Your task to perform on an android device: Open calendar and show me the third week of next month Image 0: 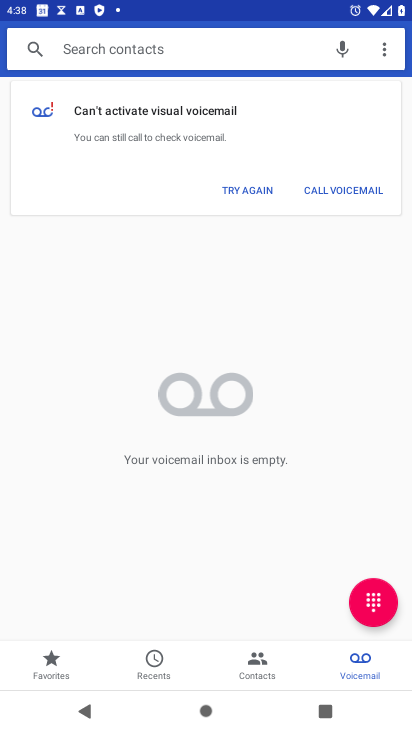
Step 0: press home button
Your task to perform on an android device: Open calendar and show me the third week of next month Image 1: 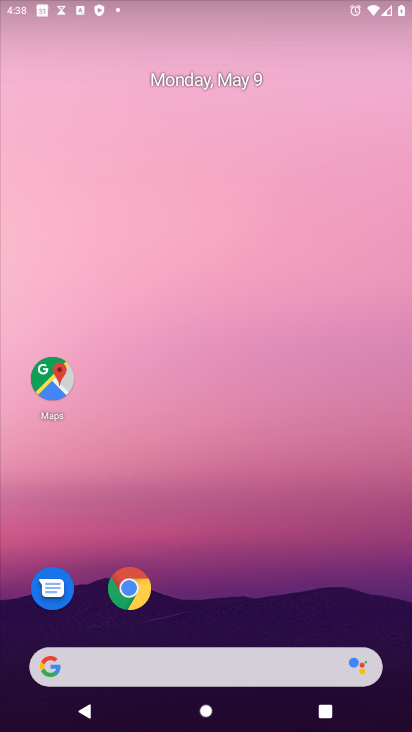
Step 1: drag from (296, 553) to (212, 90)
Your task to perform on an android device: Open calendar and show me the third week of next month Image 2: 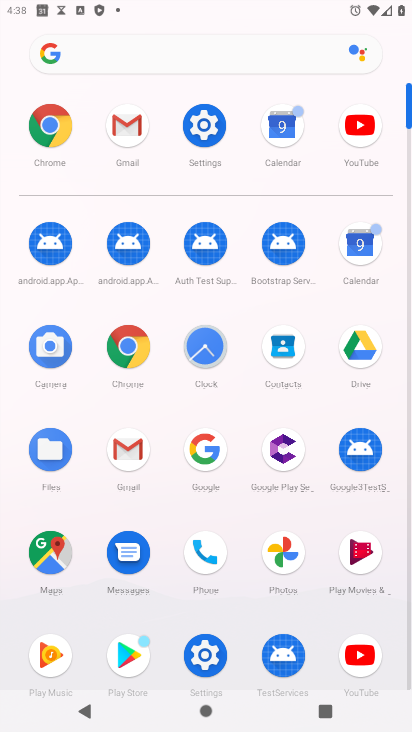
Step 2: click (354, 243)
Your task to perform on an android device: Open calendar and show me the third week of next month Image 3: 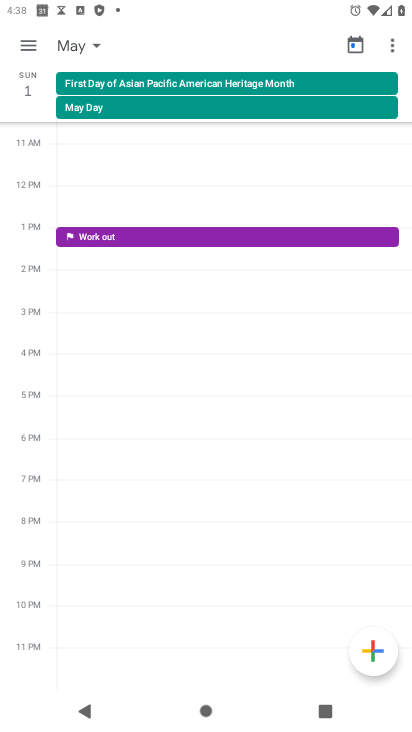
Step 3: click (24, 44)
Your task to perform on an android device: Open calendar and show me the third week of next month Image 4: 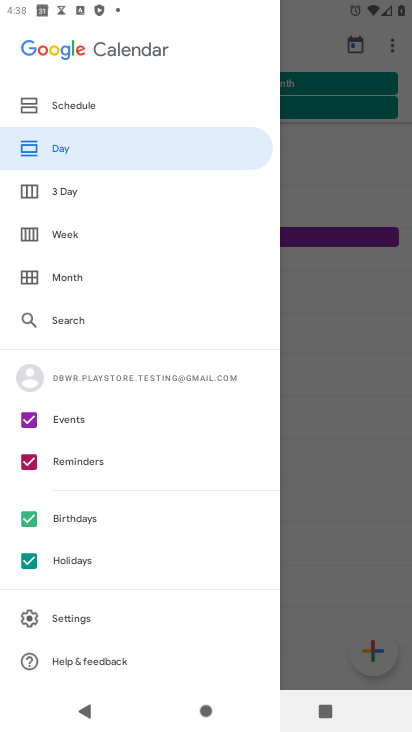
Step 4: click (74, 241)
Your task to perform on an android device: Open calendar and show me the third week of next month Image 5: 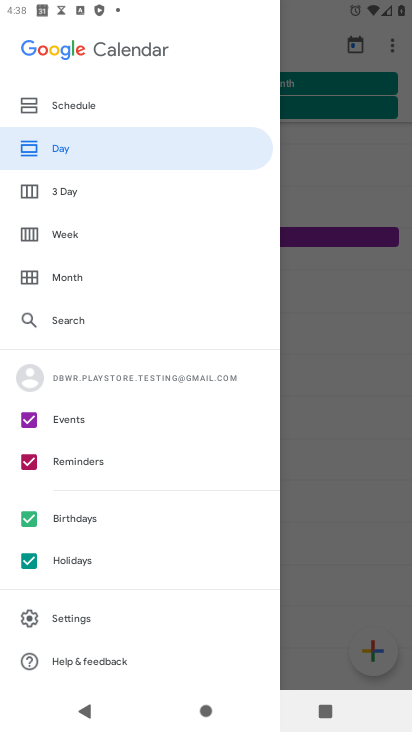
Step 5: click (65, 232)
Your task to perform on an android device: Open calendar and show me the third week of next month Image 6: 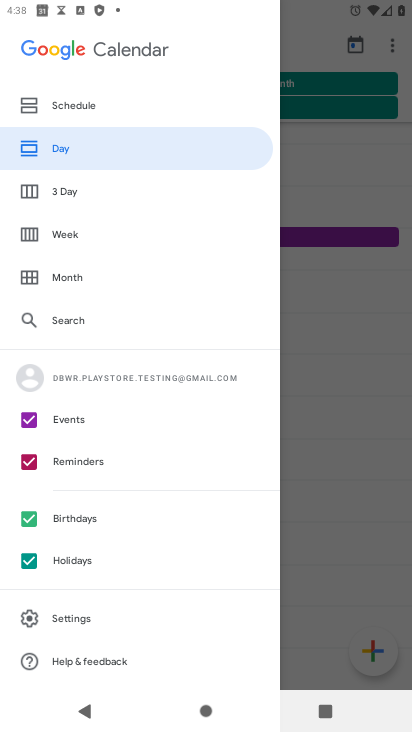
Step 6: click (79, 230)
Your task to perform on an android device: Open calendar and show me the third week of next month Image 7: 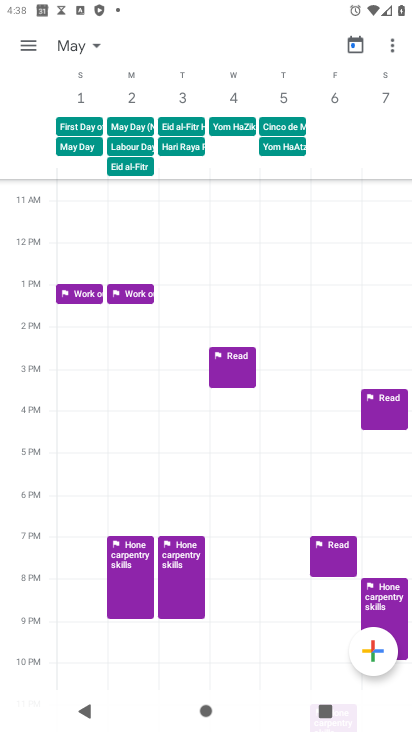
Step 7: click (88, 36)
Your task to perform on an android device: Open calendar and show me the third week of next month Image 8: 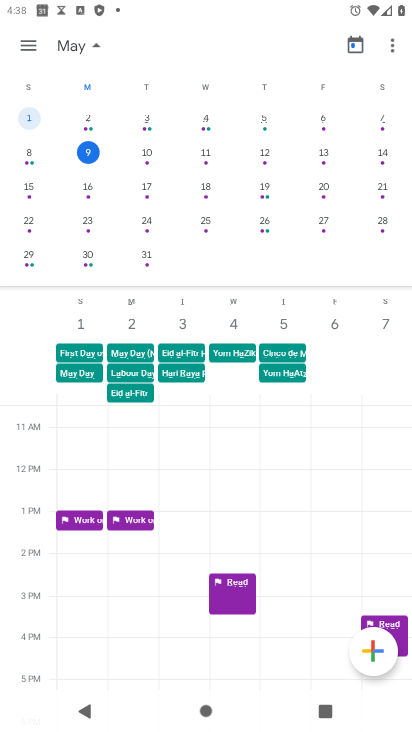
Step 8: drag from (4, 205) to (30, 291)
Your task to perform on an android device: Open calendar and show me the third week of next month Image 9: 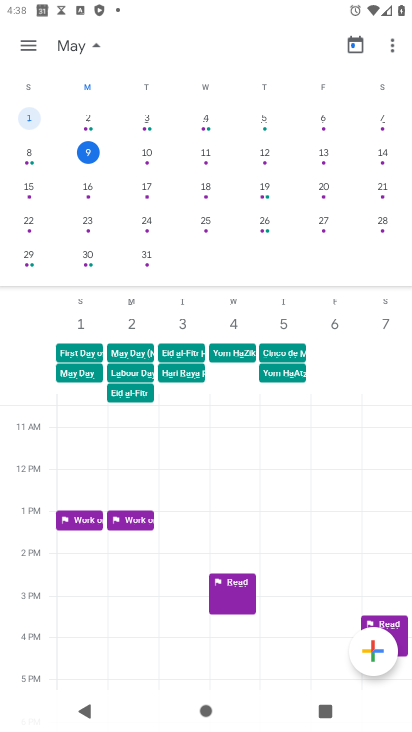
Step 9: drag from (352, 190) to (25, 276)
Your task to perform on an android device: Open calendar and show me the third week of next month Image 10: 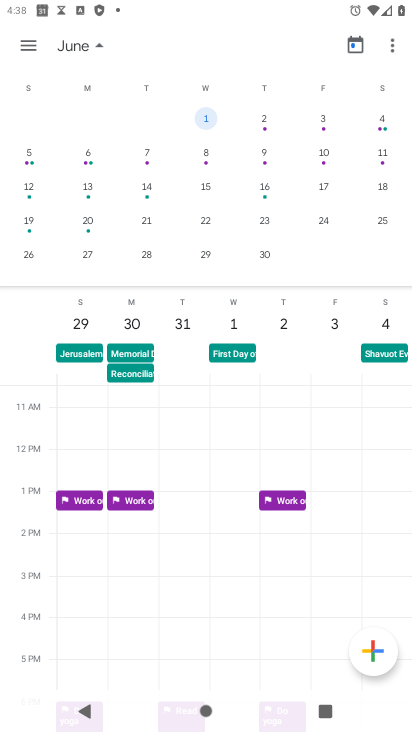
Step 10: click (35, 216)
Your task to perform on an android device: Open calendar and show me the third week of next month Image 11: 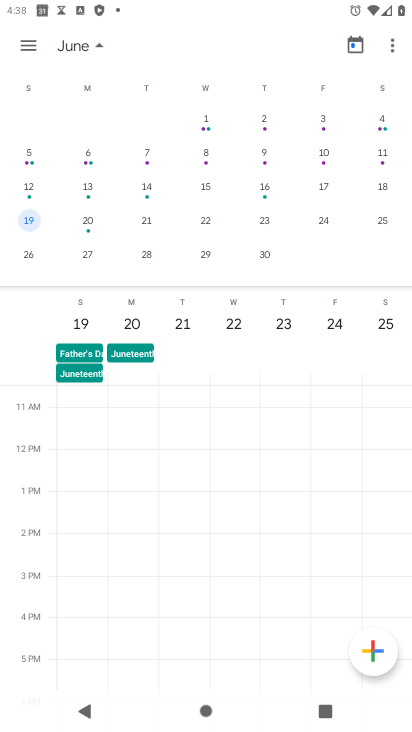
Step 11: click (40, 179)
Your task to perform on an android device: Open calendar and show me the third week of next month Image 12: 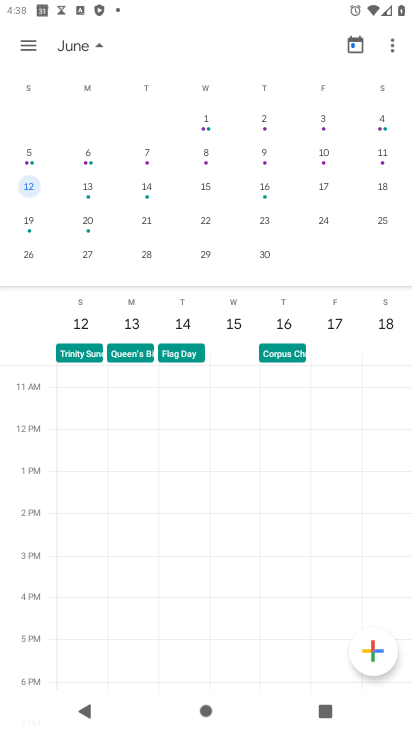
Step 12: task complete